Your task to perform on an android device: What's the news in Bangladesh? Image 0: 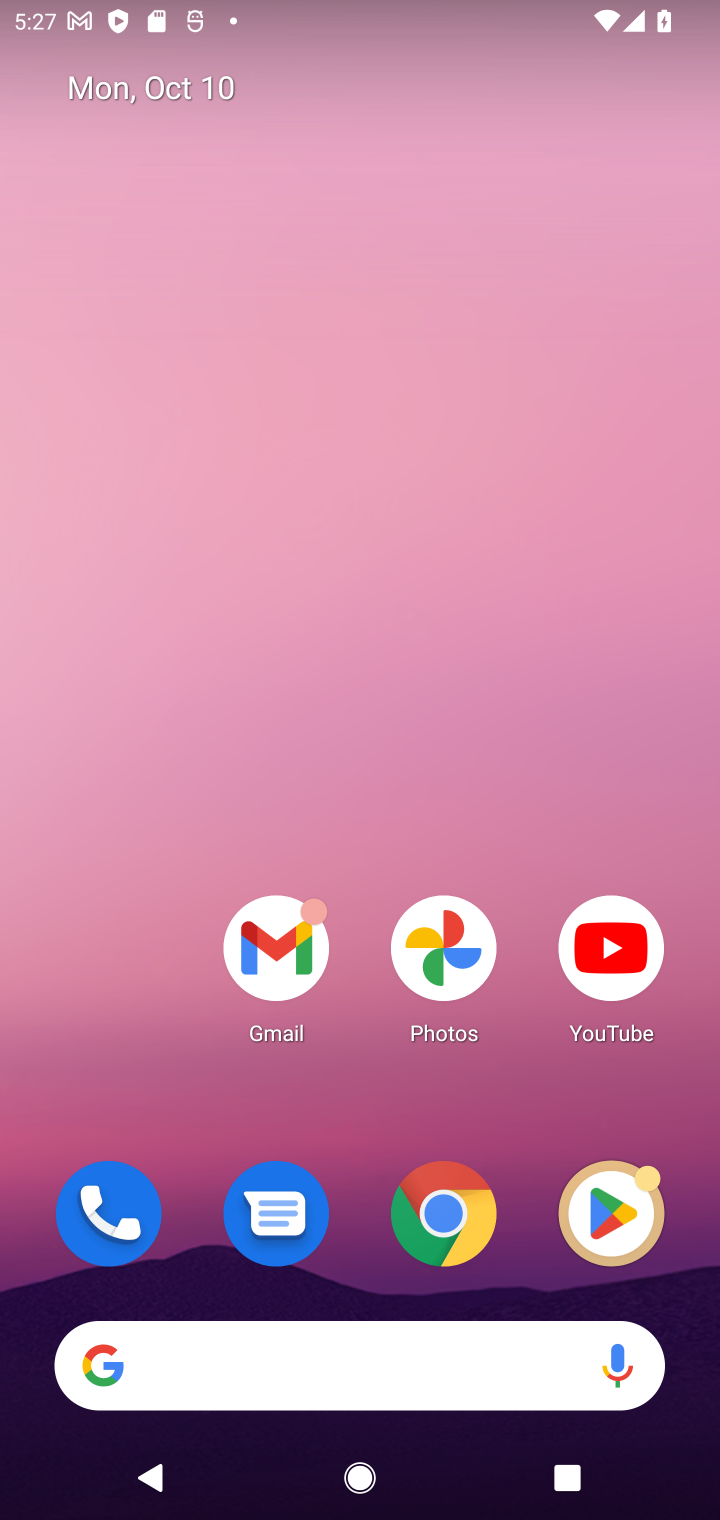
Step 0: click (258, 1384)
Your task to perform on an android device: What's the news in Bangladesh? Image 1: 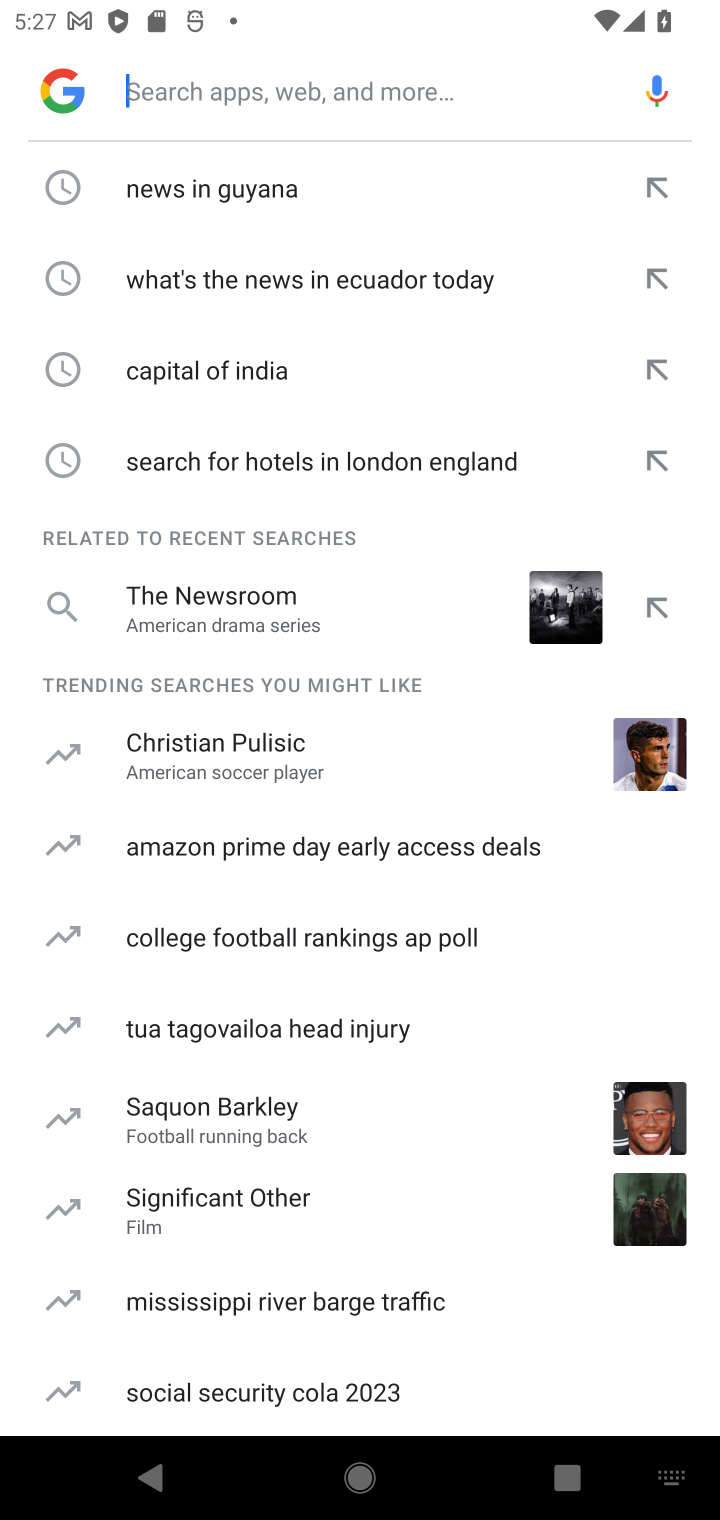
Step 1: click (232, 97)
Your task to perform on an android device: What's the news in Bangladesh? Image 2: 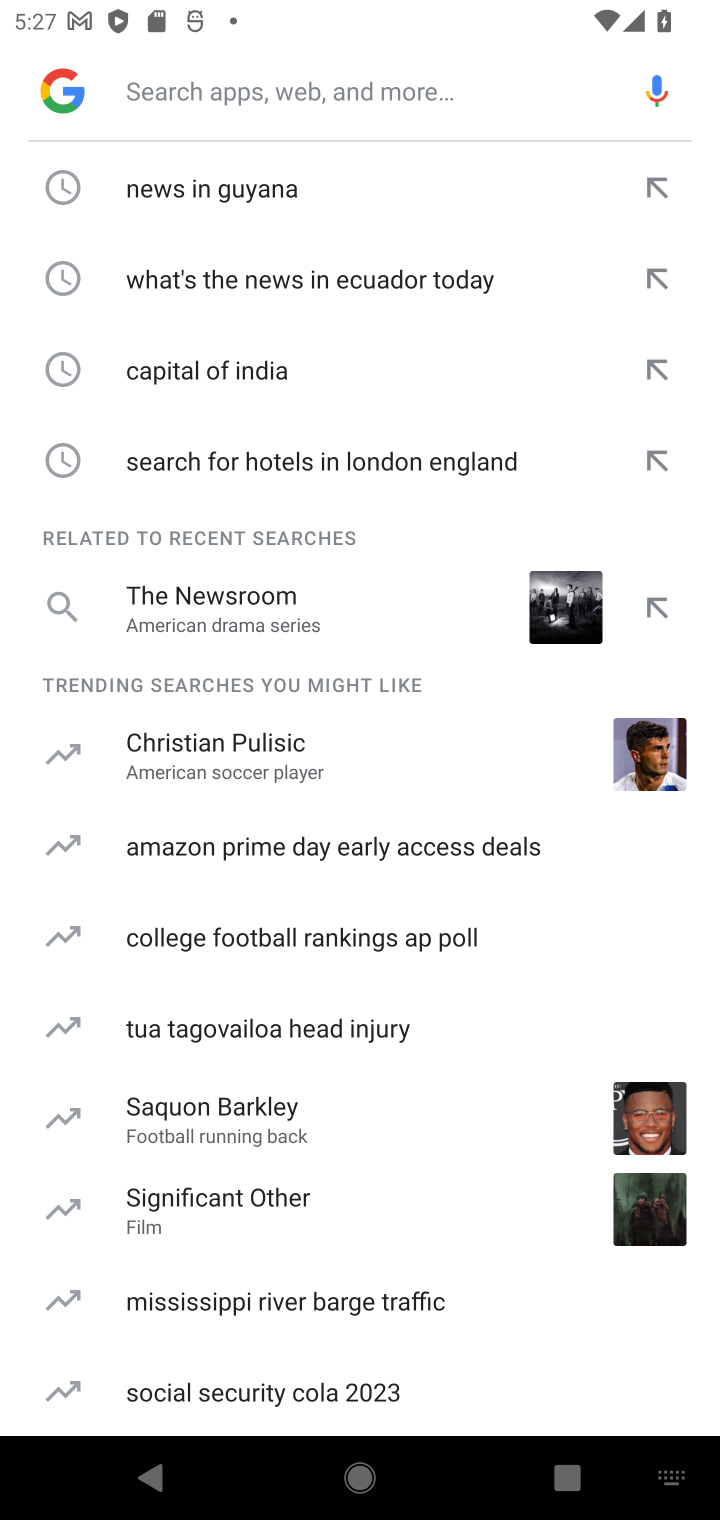
Step 2: type "What's the news in Bangladesh"
Your task to perform on an android device: What's the news in Bangladesh? Image 3: 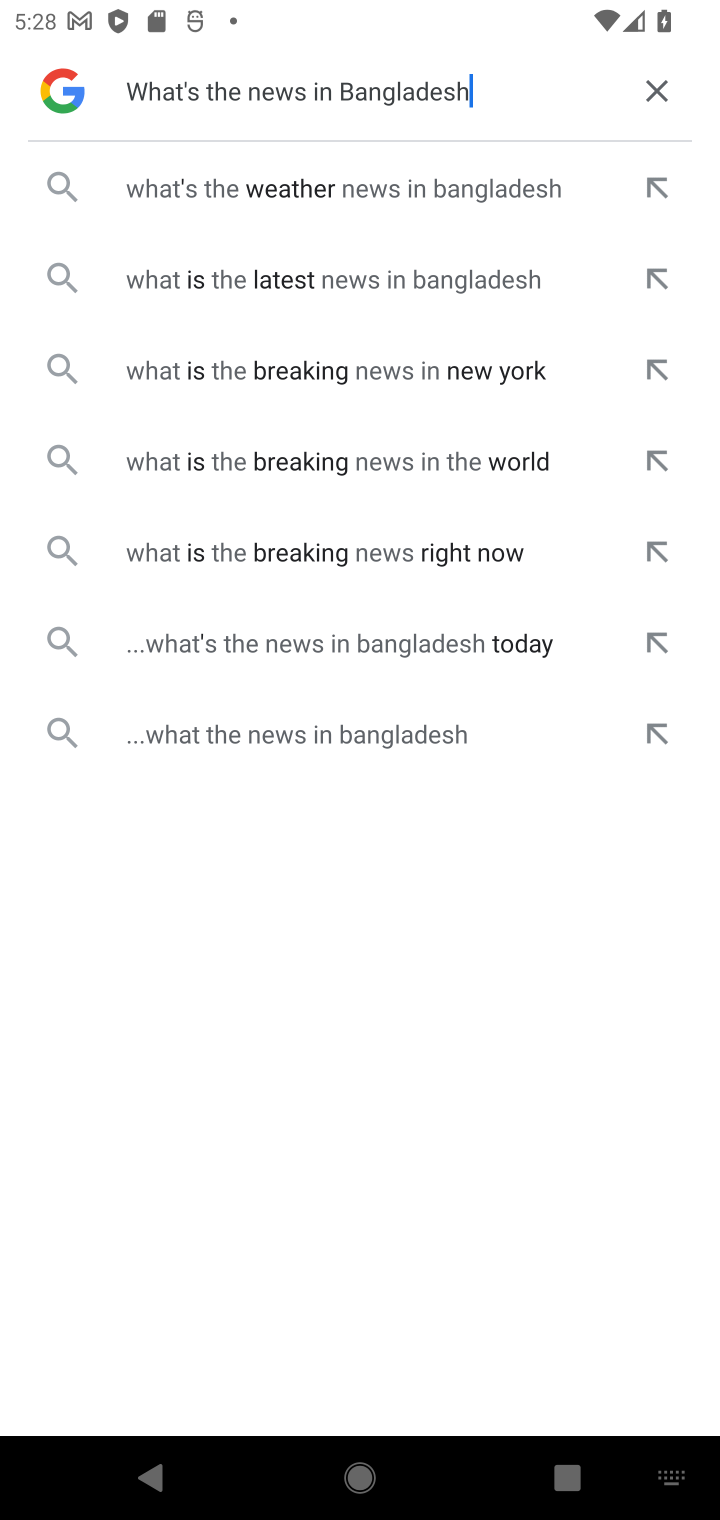
Step 3: click (357, 194)
Your task to perform on an android device: What's the news in Bangladesh? Image 4: 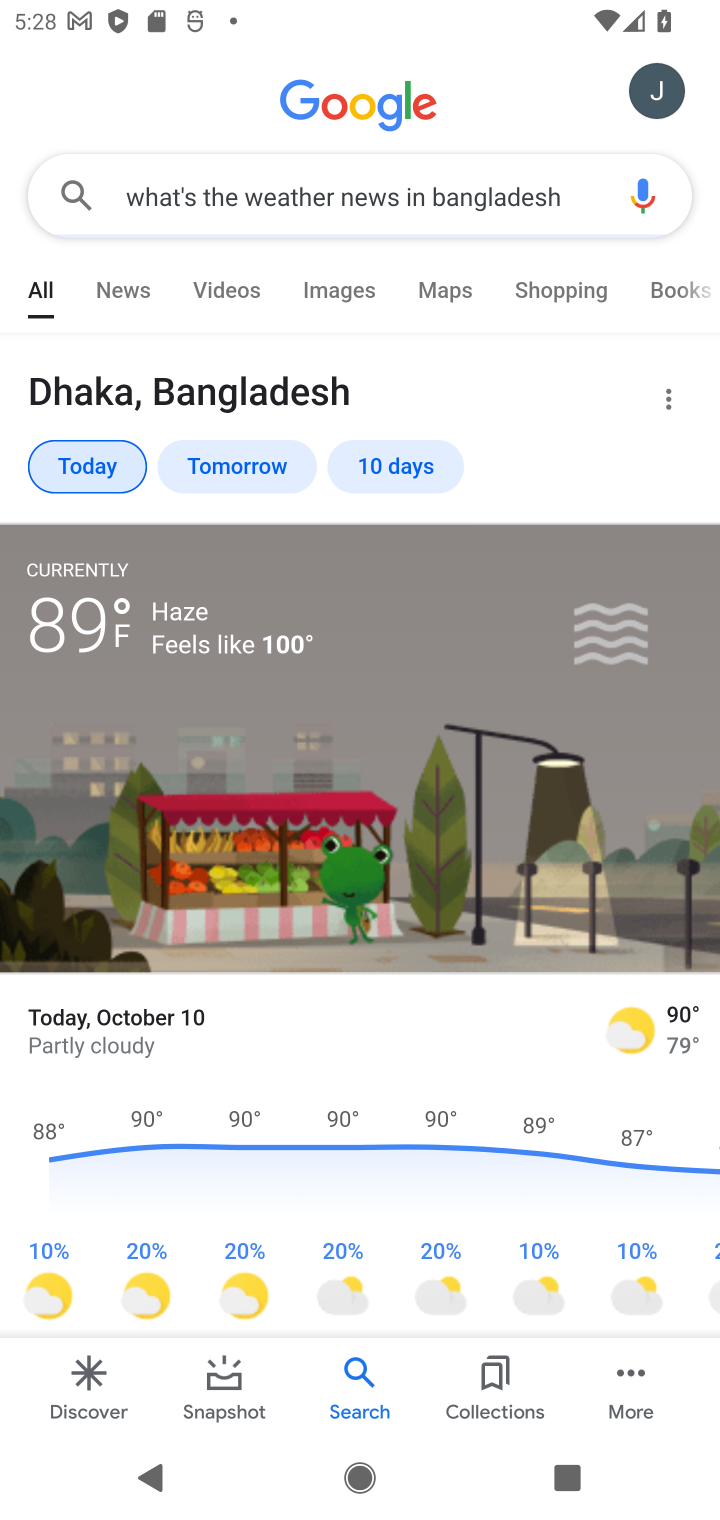
Step 4: task complete